Your task to perform on an android device: turn off data saver in the chrome app Image 0: 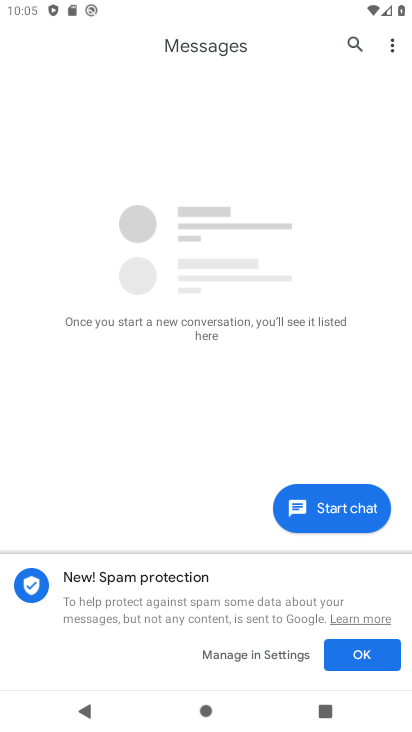
Step 0: press home button
Your task to perform on an android device: turn off data saver in the chrome app Image 1: 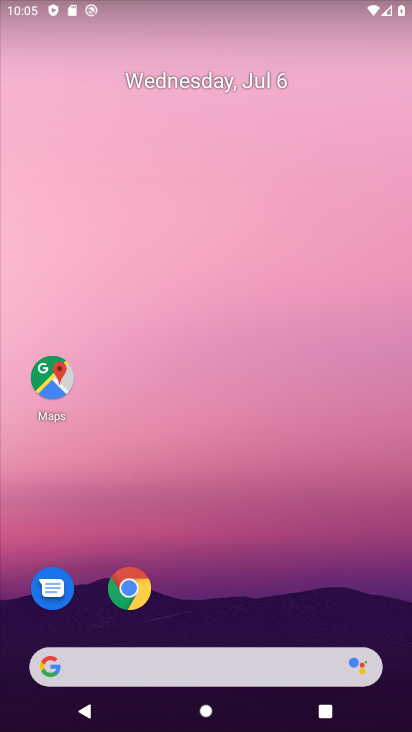
Step 1: click (133, 587)
Your task to perform on an android device: turn off data saver in the chrome app Image 2: 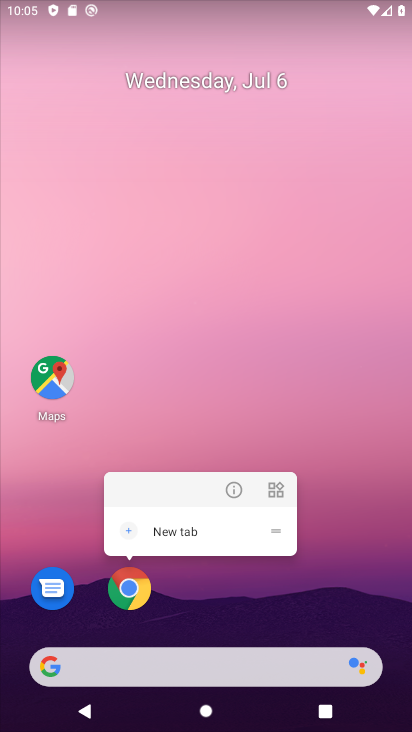
Step 2: click (125, 583)
Your task to perform on an android device: turn off data saver in the chrome app Image 3: 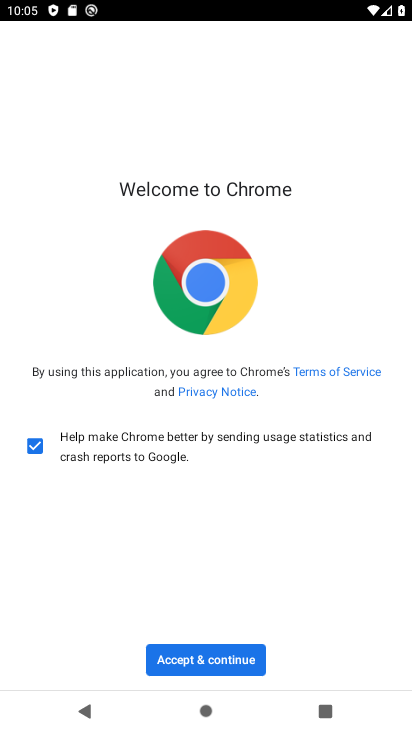
Step 3: click (189, 664)
Your task to perform on an android device: turn off data saver in the chrome app Image 4: 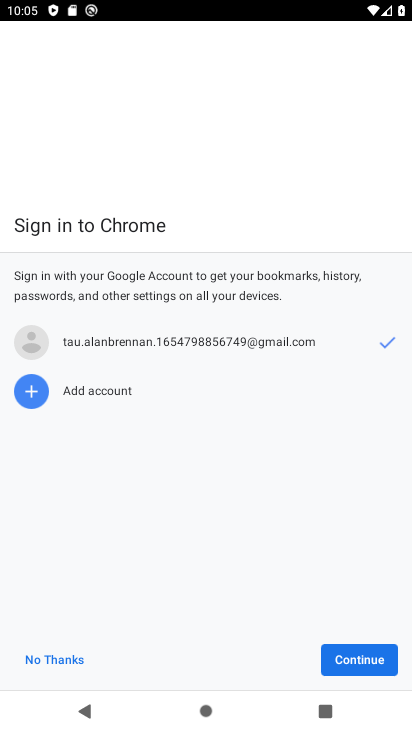
Step 4: click (367, 662)
Your task to perform on an android device: turn off data saver in the chrome app Image 5: 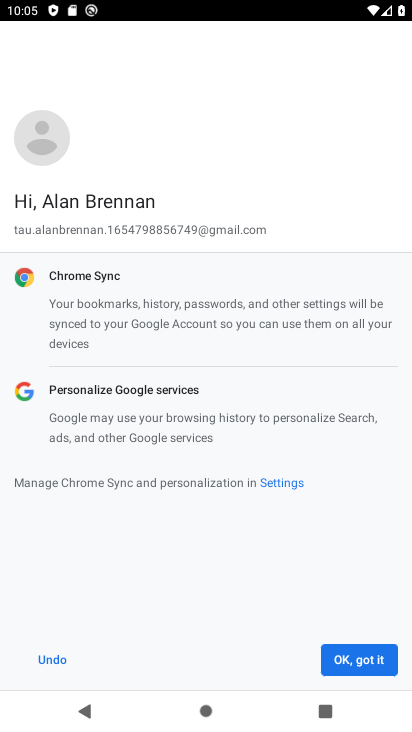
Step 5: click (365, 661)
Your task to perform on an android device: turn off data saver in the chrome app Image 6: 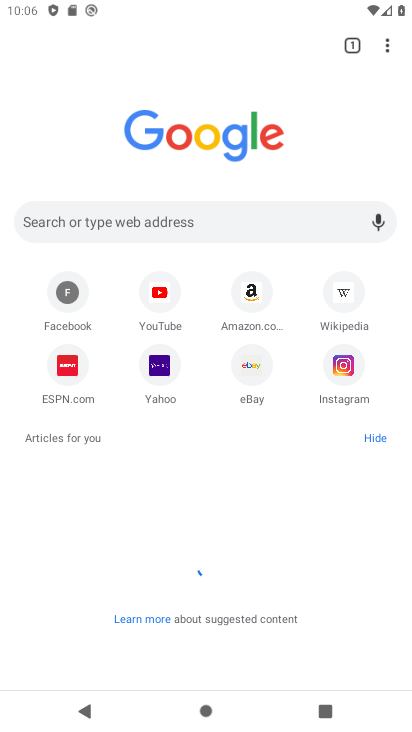
Step 6: click (386, 53)
Your task to perform on an android device: turn off data saver in the chrome app Image 7: 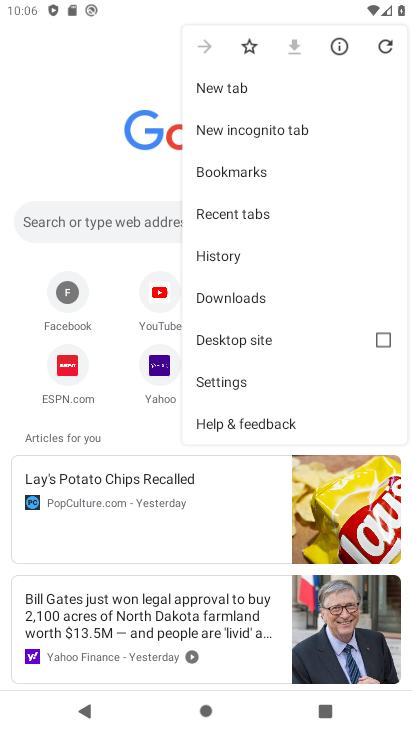
Step 7: click (215, 381)
Your task to perform on an android device: turn off data saver in the chrome app Image 8: 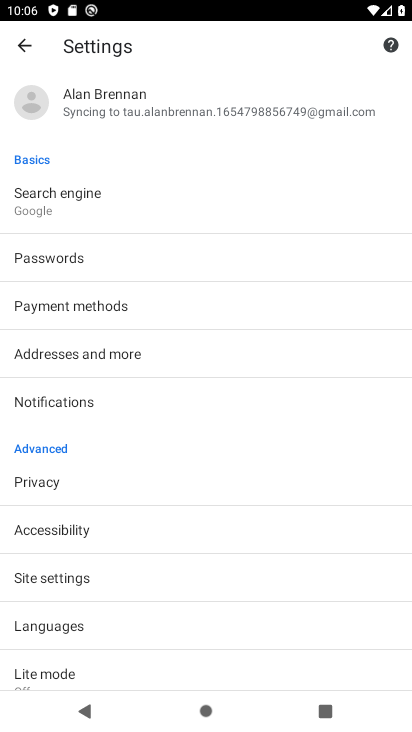
Step 8: click (67, 669)
Your task to perform on an android device: turn off data saver in the chrome app Image 9: 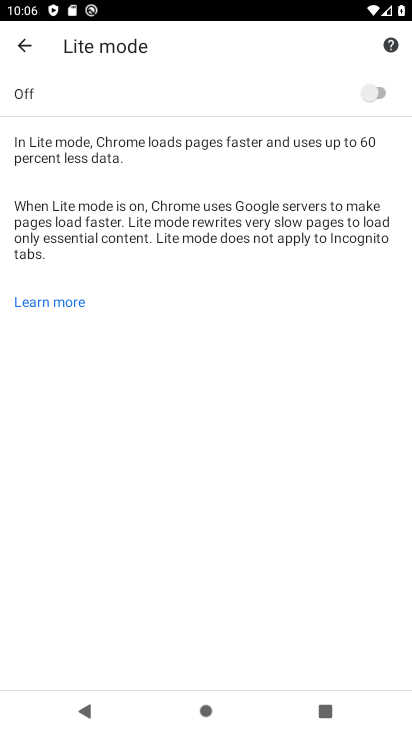
Step 9: task complete